Your task to perform on an android device: change notification settings in the gmail app Image 0: 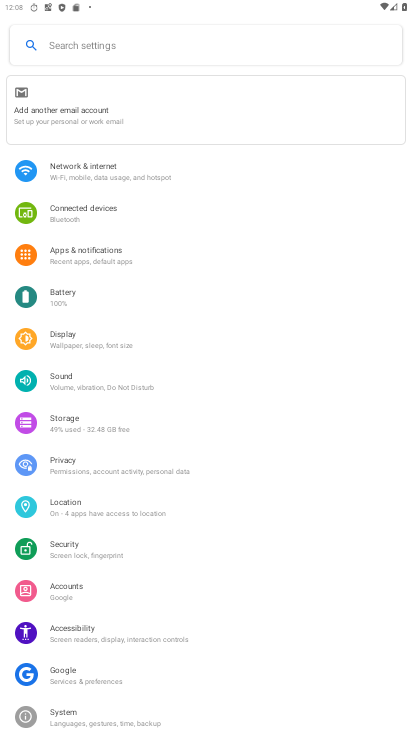
Step 0: click (58, 251)
Your task to perform on an android device: change notification settings in the gmail app Image 1: 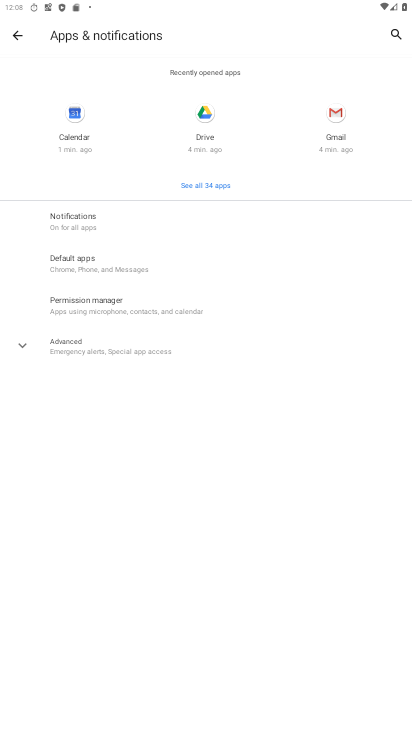
Step 1: click (65, 221)
Your task to perform on an android device: change notification settings in the gmail app Image 2: 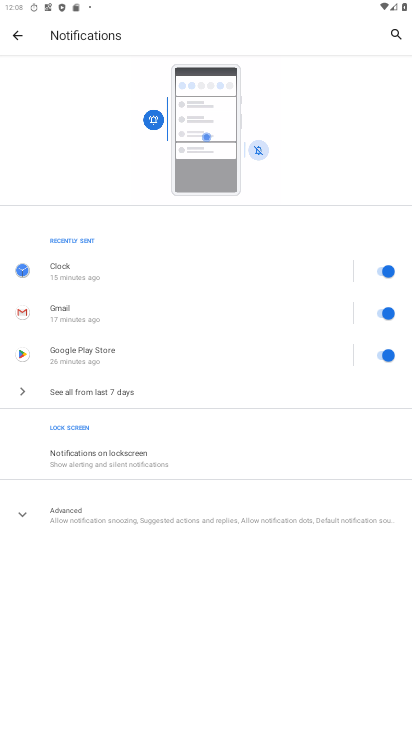
Step 2: click (68, 462)
Your task to perform on an android device: change notification settings in the gmail app Image 3: 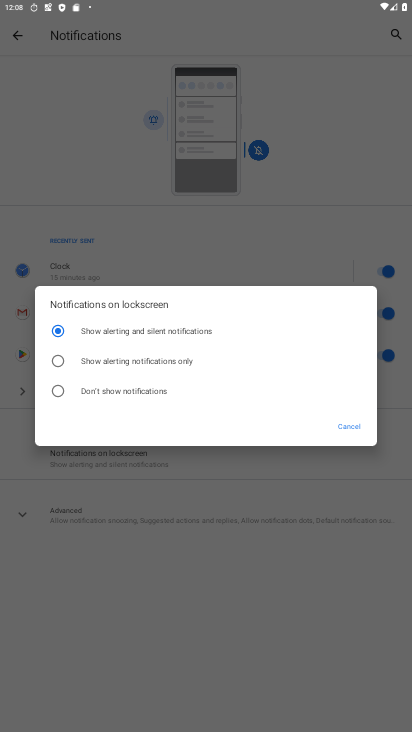
Step 3: click (61, 388)
Your task to perform on an android device: change notification settings in the gmail app Image 4: 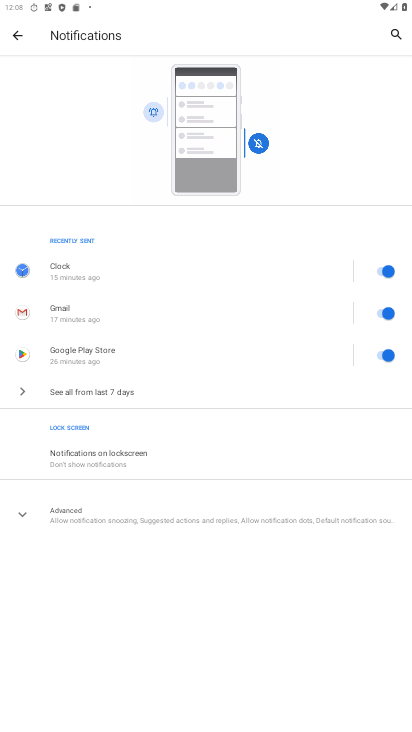
Step 4: task complete